Your task to perform on an android device: check storage Image 0: 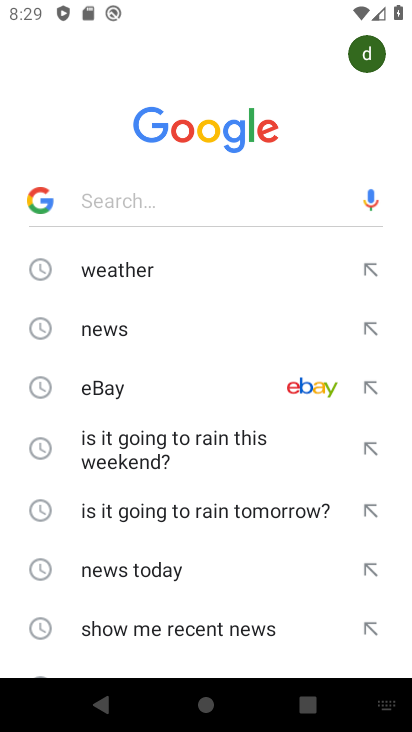
Step 0: press back button
Your task to perform on an android device: check storage Image 1: 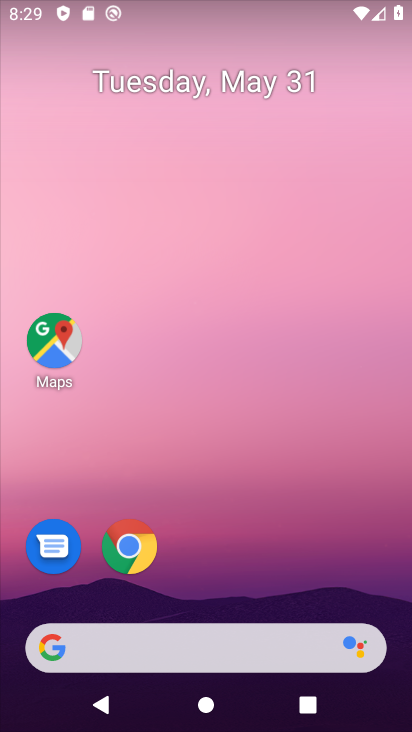
Step 1: drag from (401, 690) to (372, 115)
Your task to perform on an android device: check storage Image 2: 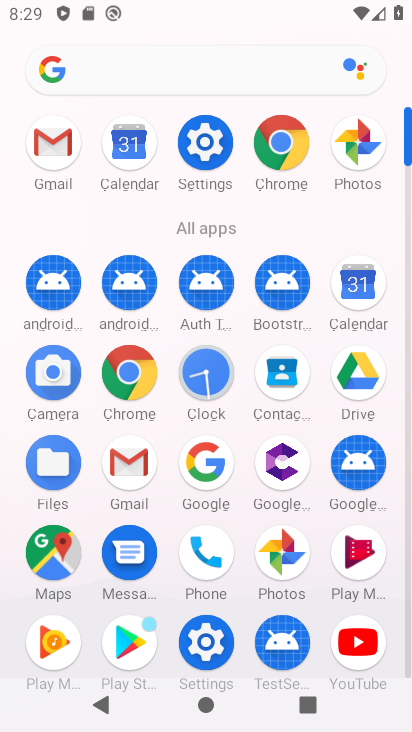
Step 2: click (217, 140)
Your task to perform on an android device: check storage Image 3: 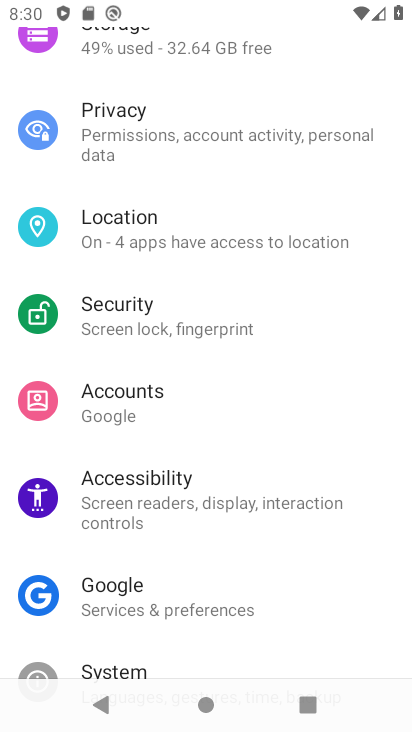
Step 3: drag from (250, 658) to (277, 283)
Your task to perform on an android device: check storage Image 4: 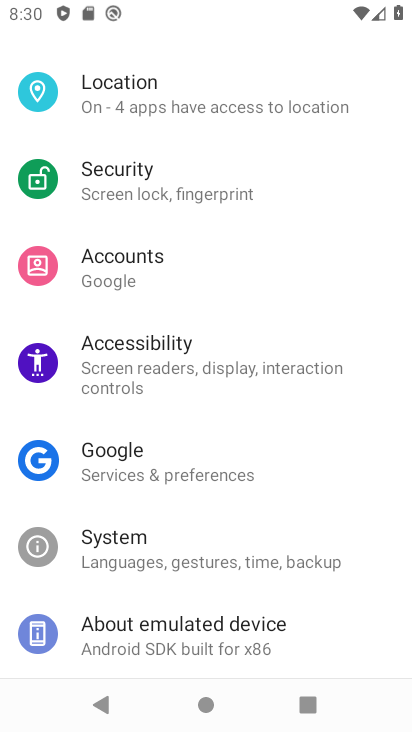
Step 4: drag from (262, 178) to (276, 530)
Your task to perform on an android device: check storage Image 5: 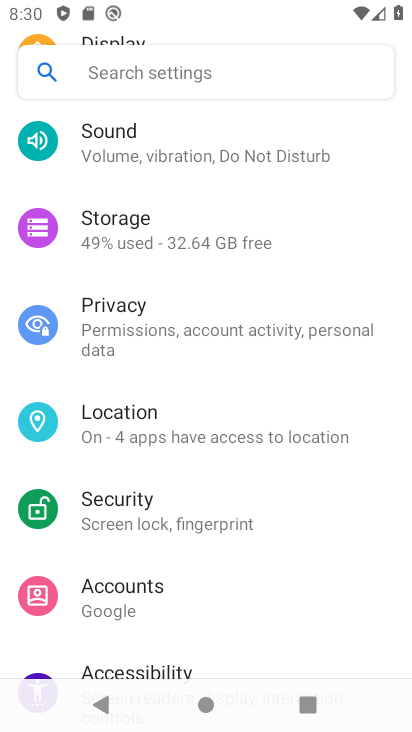
Step 5: click (112, 242)
Your task to perform on an android device: check storage Image 6: 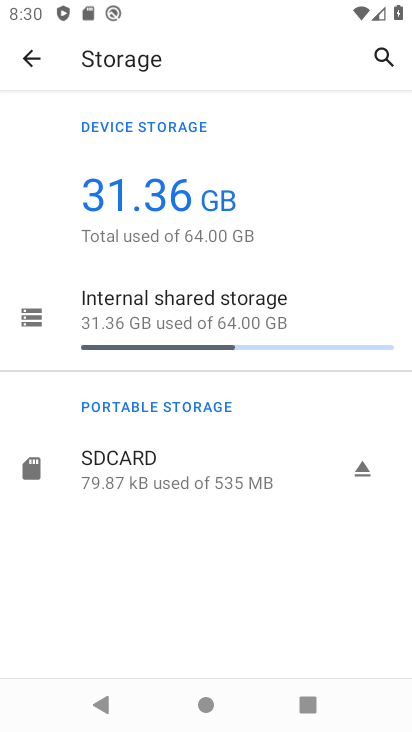
Step 6: task complete